Your task to perform on an android device: delete a single message in the gmail app Image 0: 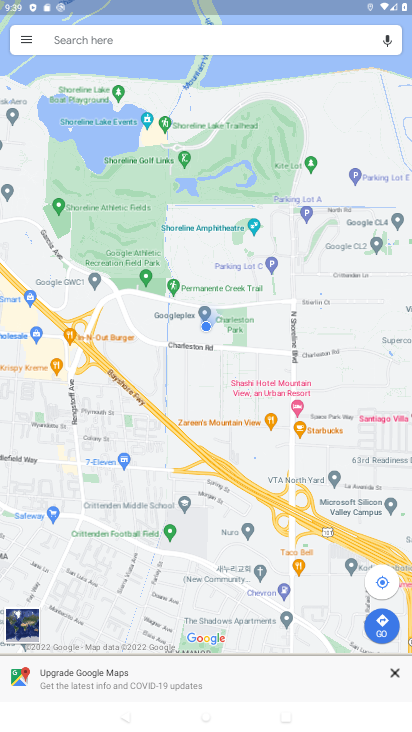
Step 0: press home button
Your task to perform on an android device: delete a single message in the gmail app Image 1: 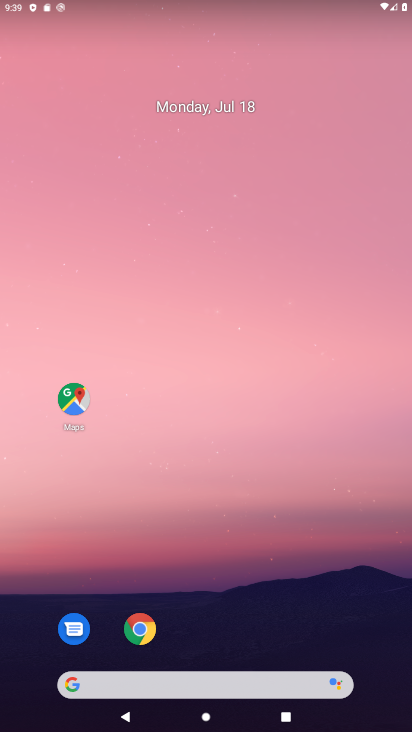
Step 1: drag from (192, 684) to (147, 340)
Your task to perform on an android device: delete a single message in the gmail app Image 2: 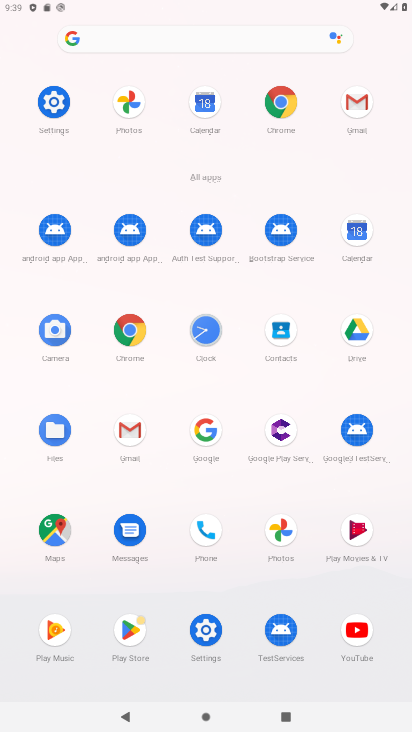
Step 2: click (128, 439)
Your task to perform on an android device: delete a single message in the gmail app Image 3: 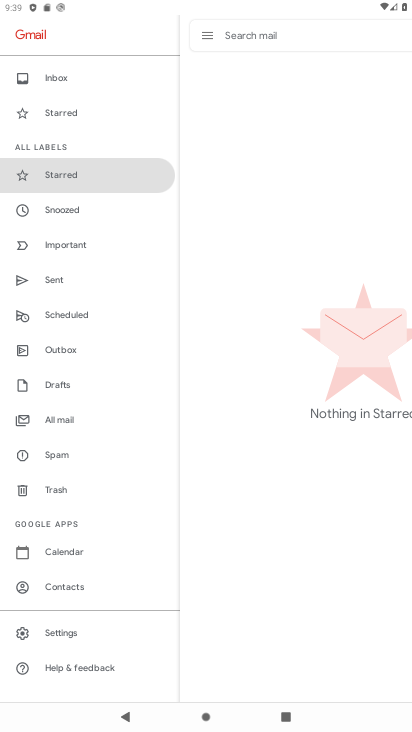
Step 3: click (59, 84)
Your task to perform on an android device: delete a single message in the gmail app Image 4: 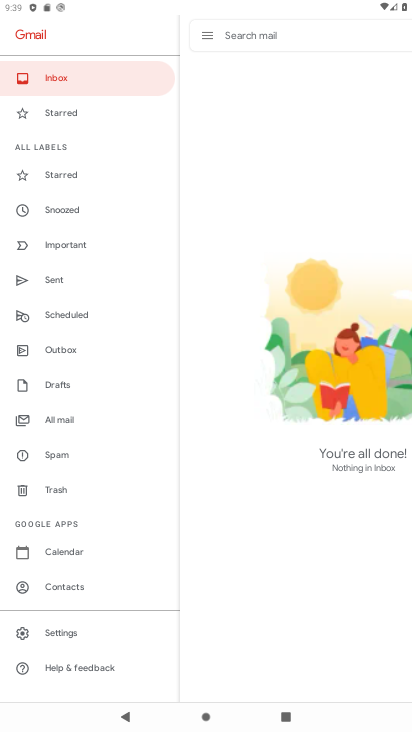
Step 4: task complete